Your task to perform on an android device: What's the weather going to be this weekend? Image 0: 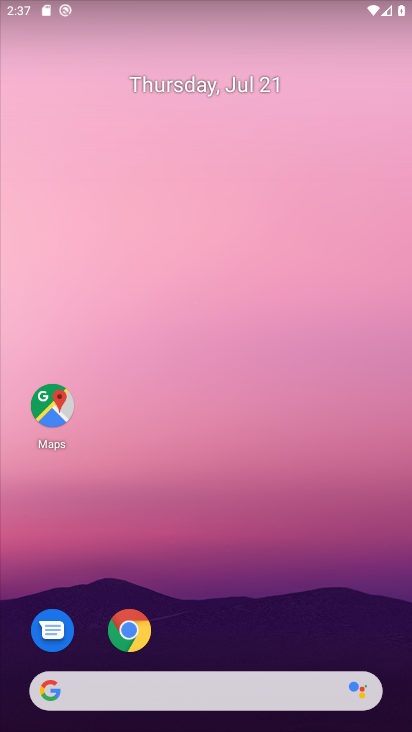
Step 0: drag from (281, 491) to (273, 139)
Your task to perform on an android device: What's the weather going to be this weekend? Image 1: 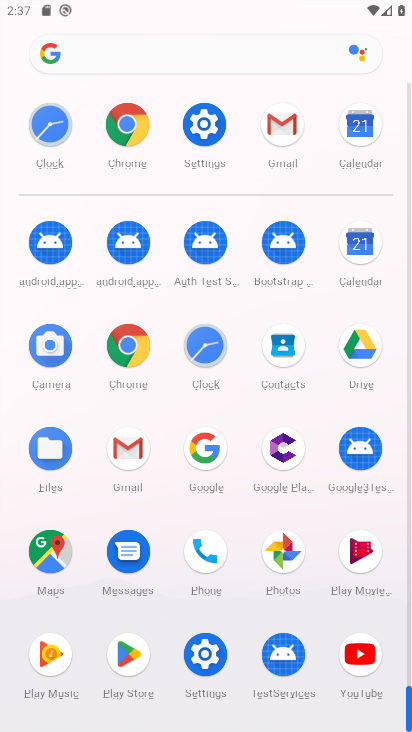
Step 1: click (353, 243)
Your task to perform on an android device: What's the weather going to be this weekend? Image 2: 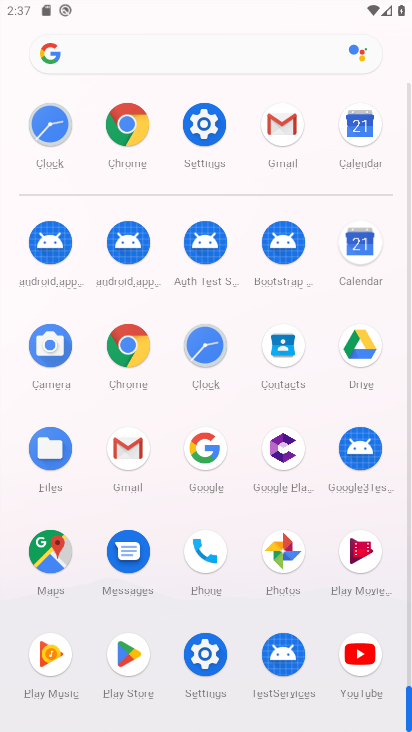
Step 2: click (353, 243)
Your task to perform on an android device: What's the weather going to be this weekend? Image 3: 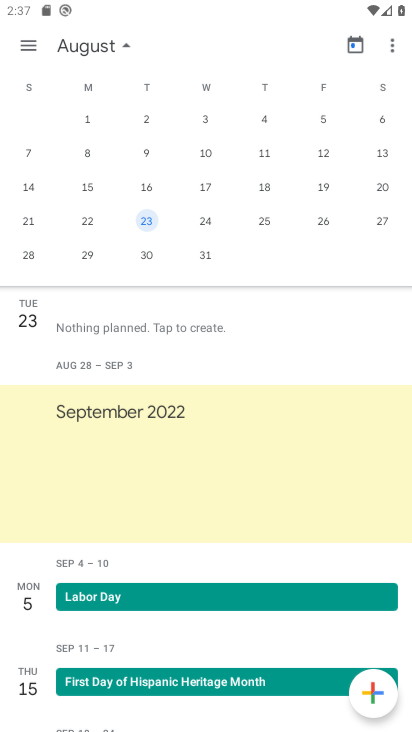
Step 3: click (354, 242)
Your task to perform on an android device: What's the weather going to be this weekend? Image 4: 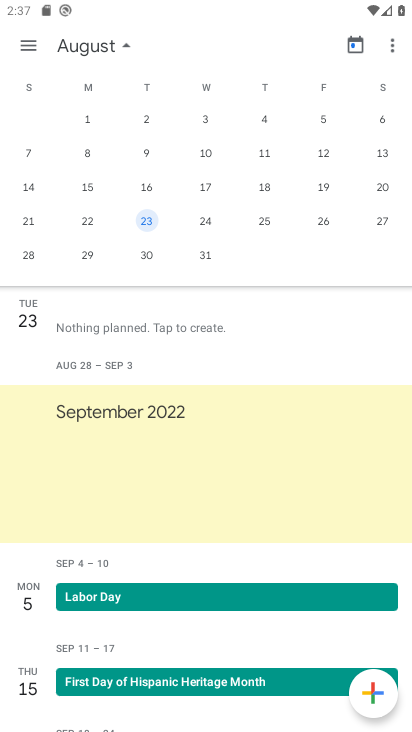
Step 4: press back button
Your task to perform on an android device: What's the weather going to be this weekend? Image 5: 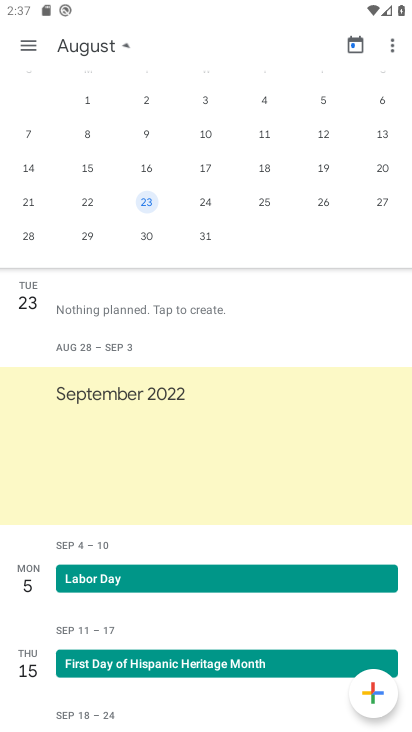
Step 5: press back button
Your task to perform on an android device: What's the weather going to be this weekend? Image 6: 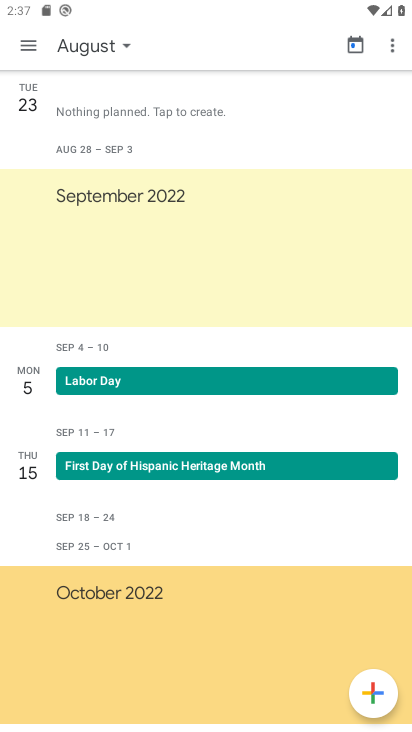
Step 6: press back button
Your task to perform on an android device: What's the weather going to be this weekend? Image 7: 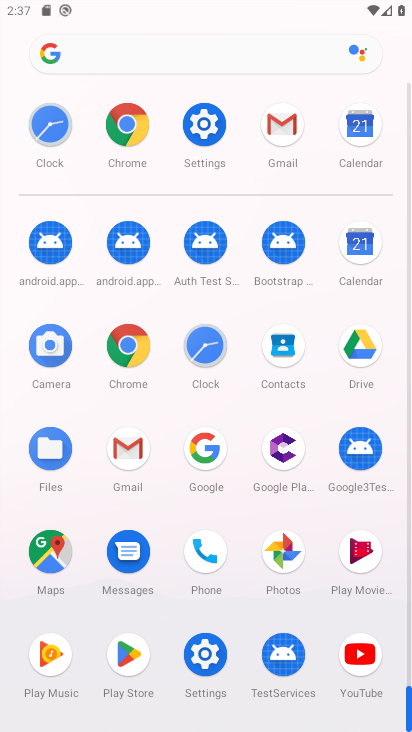
Step 7: click (130, 115)
Your task to perform on an android device: What's the weather going to be this weekend? Image 8: 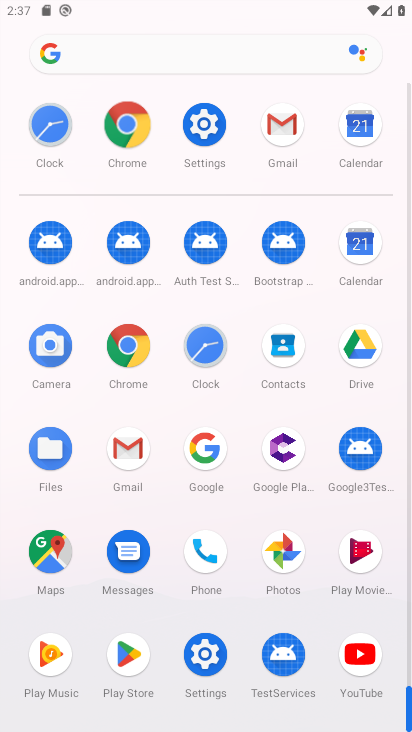
Step 8: click (130, 115)
Your task to perform on an android device: What's the weather going to be this weekend? Image 9: 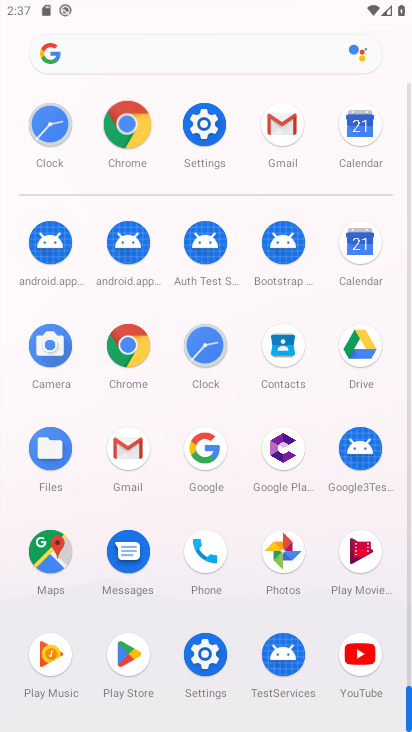
Step 9: click (125, 129)
Your task to perform on an android device: What's the weather going to be this weekend? Image 10: 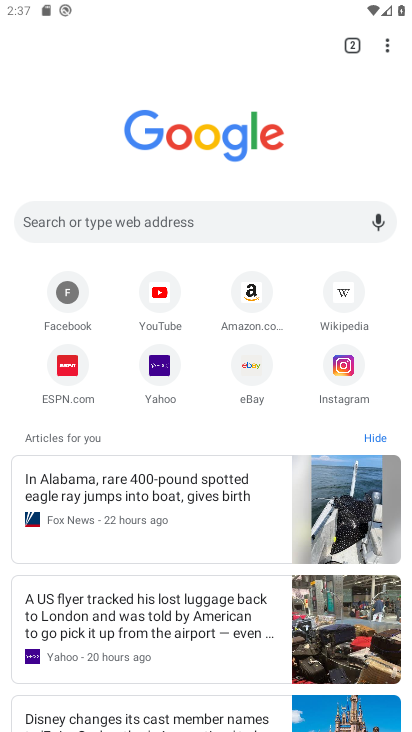
Step 10: click (97, 227)
Your task to perform on an android device: What's the weather going to be this weekend? Image 11: 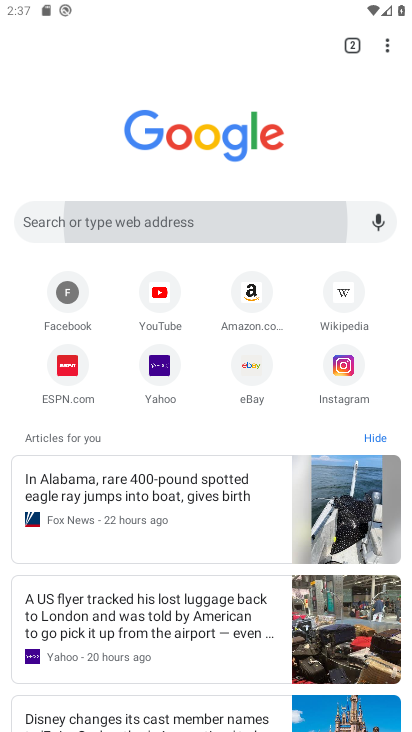
Step 11: click (97, 227)
Your task to perform on an android device: What's the weather going to be this weekend? Image 12: 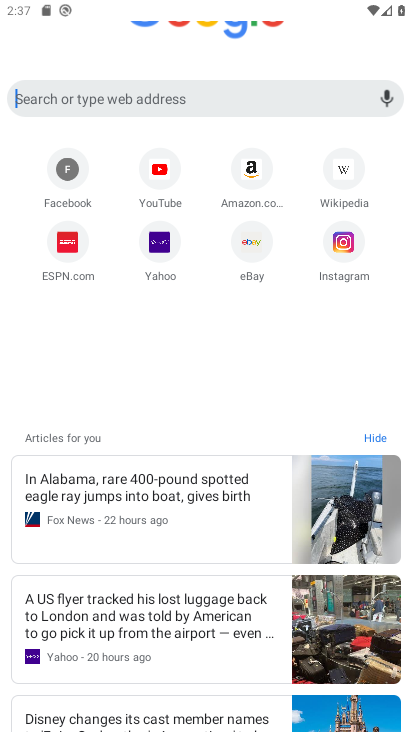
Step 12: click (97, 227)
Your task to perform on an android device: What's the weather going to be this weekend? Image 13: 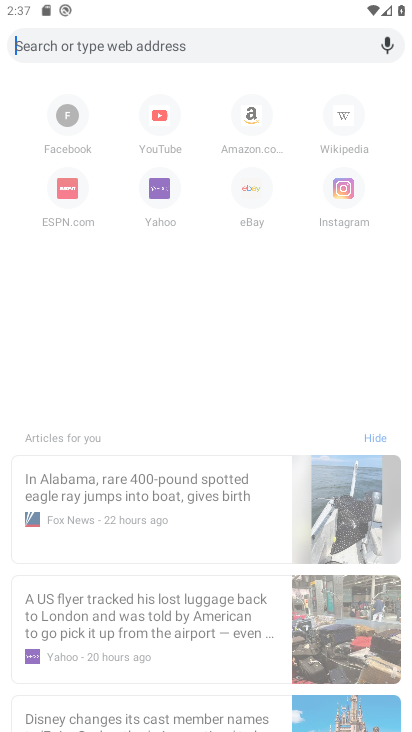
Step 13: click (97, 227)
Your task to perform on an android device: What's the weather going to be this weekend? Image 14: 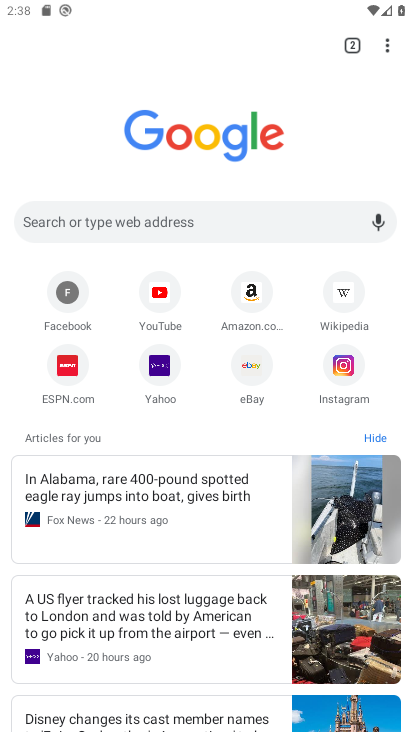
Step 14: type "what's the weather going to be this  weekend?"
Your task to perform on an android device: What's the weather going to be this weekend? Image 15: 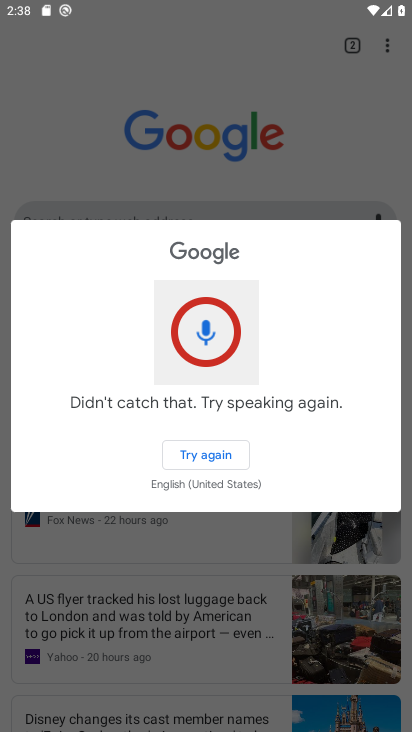
Step 15: task complete